Your task to perform on an android device: Open eBay Image 0: 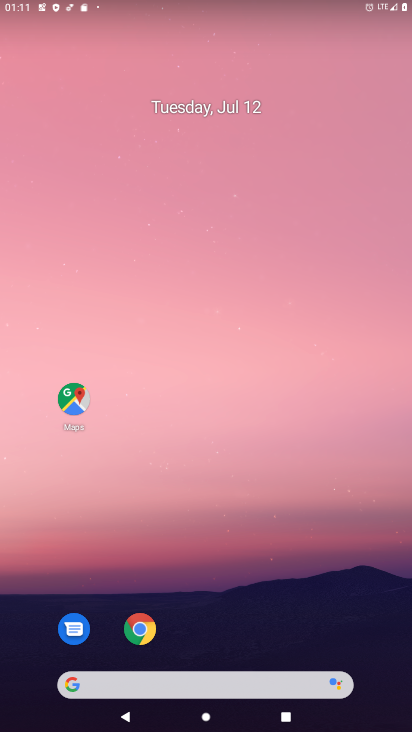
Step 0: click (162, 677)
Your task to perform on an android device: Open eBay Image 1: 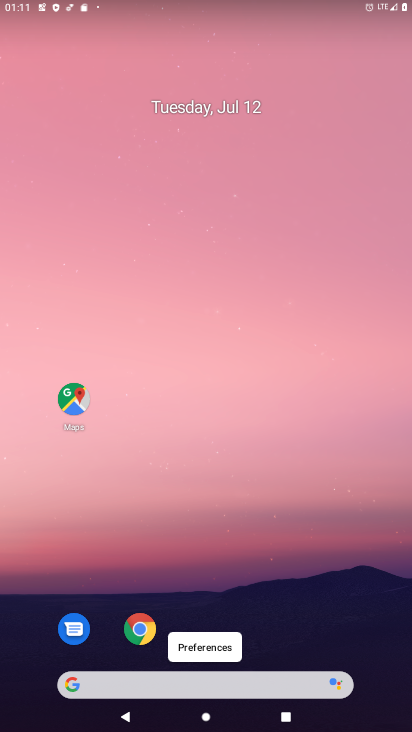
Step 1: click (127, 675)
Your task to perform on an android device: Open eBay Image 2: 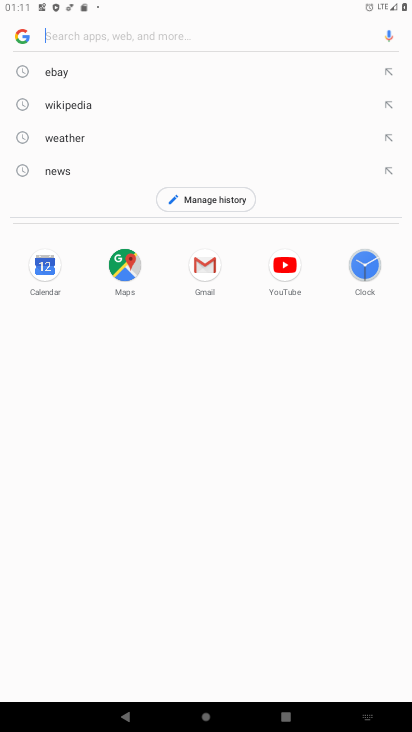
Step 2: click (49, 75)
Your task to perform on an android device: Open eBay Image 3: 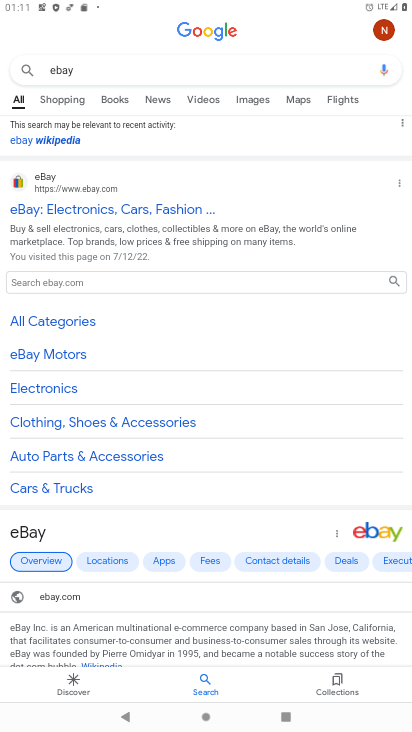
Step 3: task complete